Your task to perform on an android device: Do I have any events today? Image 0: 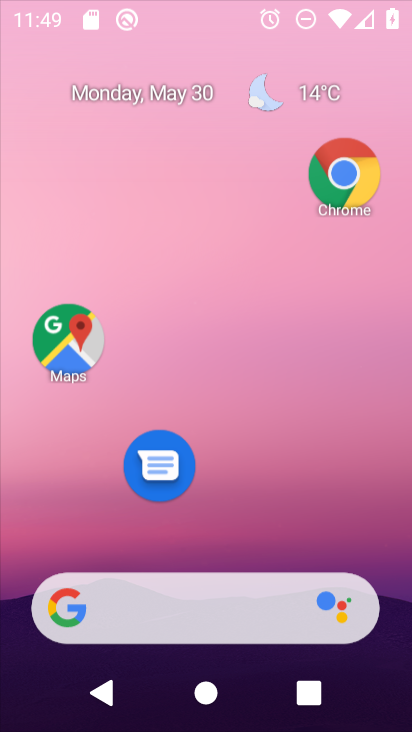
Step 0: drag from (169, 11) to (243, 99)
Your task to perform on an android device: Do I have any events today? Image 1: 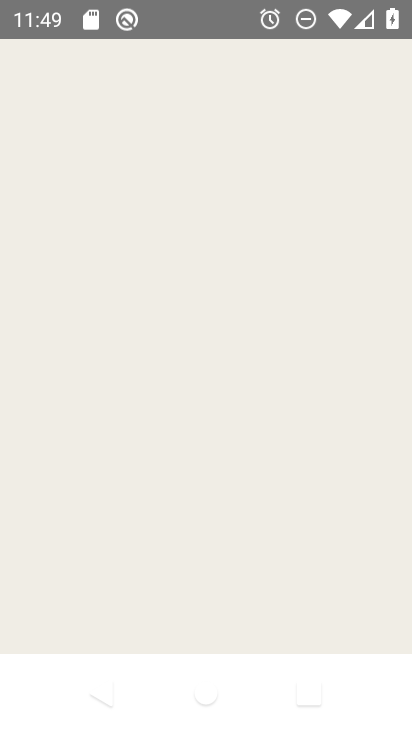
Step 1: press home button
Your task to perform on an android device: Do I have any events today? Image 2: 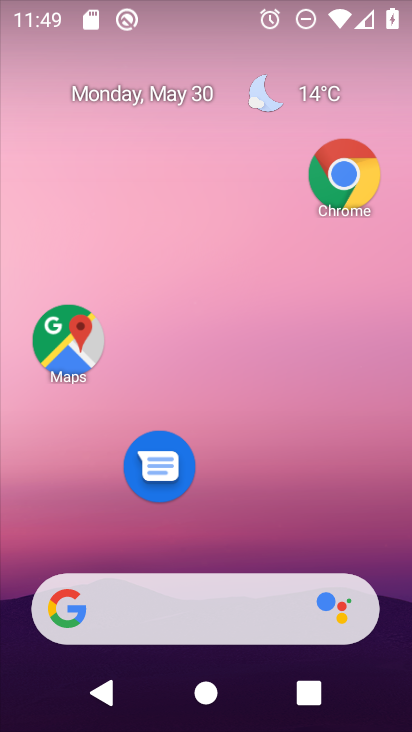
Step 2: drag from (253, 516) to (220, 162)
Your task to perform on an android device: Do I have any events today? Image 3: 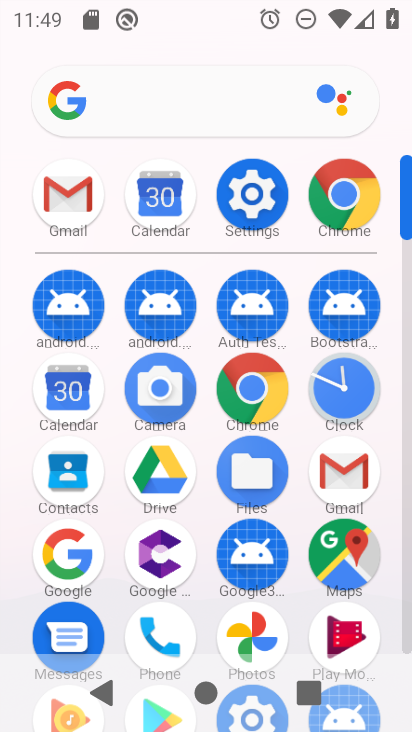
Step 3: click (50, 391)
Your task to perform on an android device: Do I have any events today? Image 4: 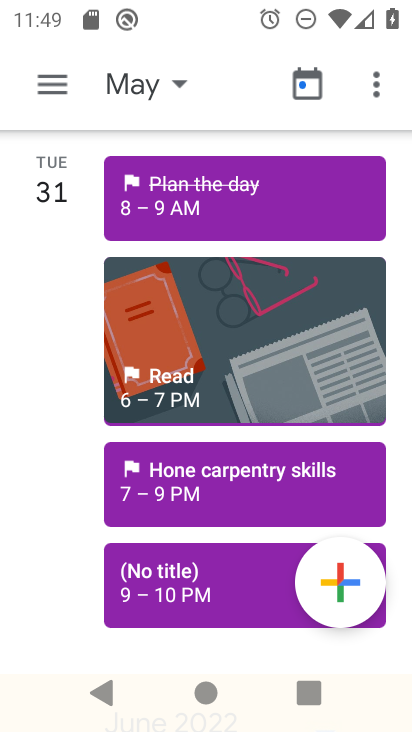
Step 4: task complete